Your task to perform on an android device: Open my contact list Image 0: 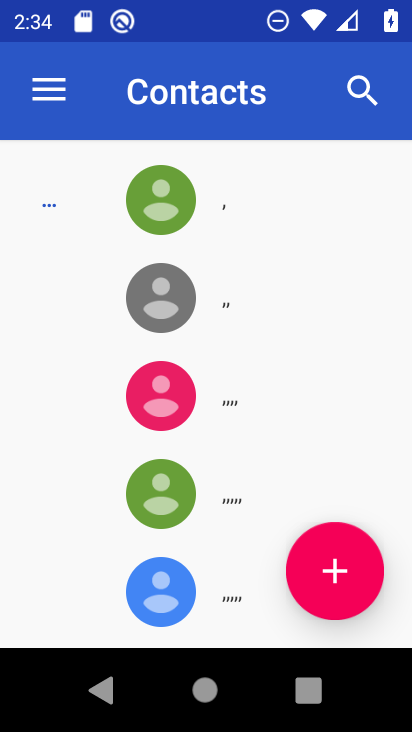
Step 0: press home button
Your task to perform on an android device: Open my contact list Image 1: 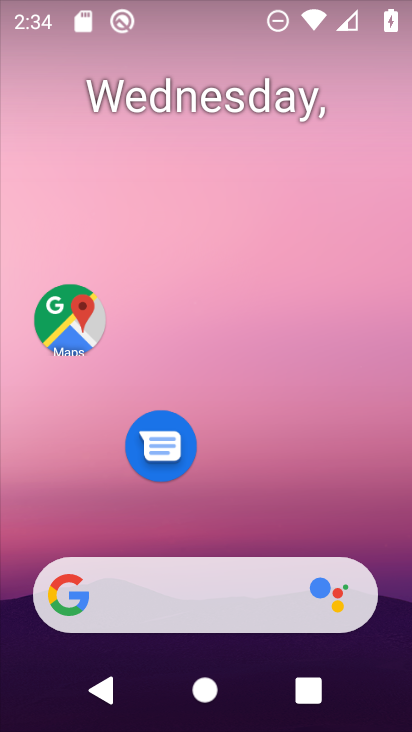
Step 1: drag from (280, 506) to (222, 117)
Your task to perform on an android device: Open my contact list Image 2: 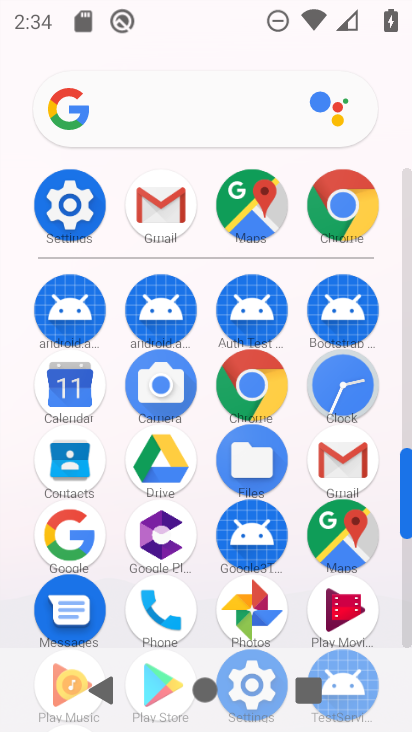
Step 2: click (55, 460)
Your task to perform on an android device: Open my contact list Image 3: 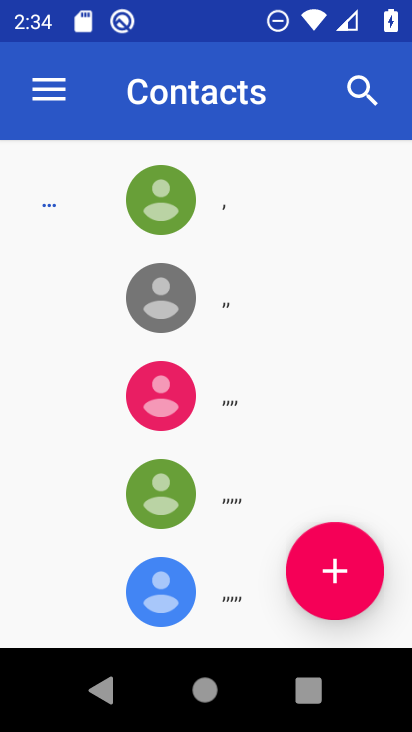
Step 3: task complete